Your task to perform on an android device: turn off location history Image 0: 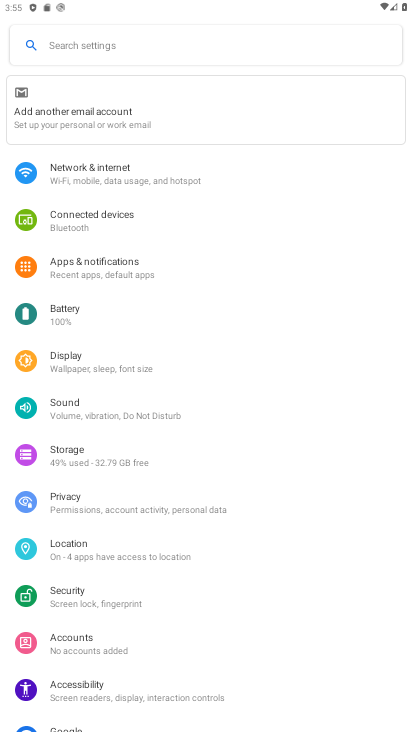
Step 0: press back button
Your task to perform on an android device: turn off location history Image 1: 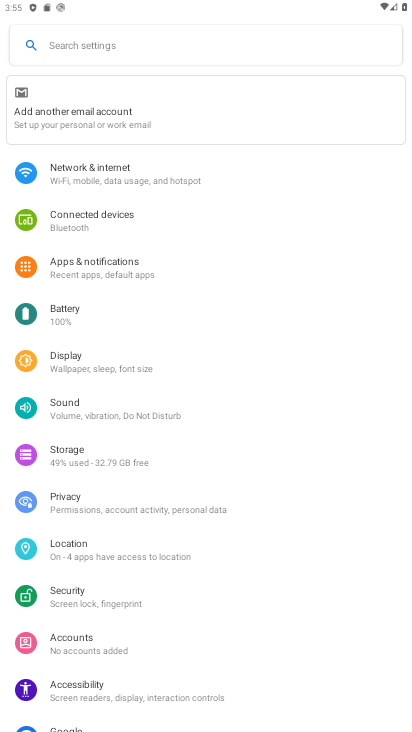
Step 1: press back button
Your task to perform on an android device: turn off location history Image 2: 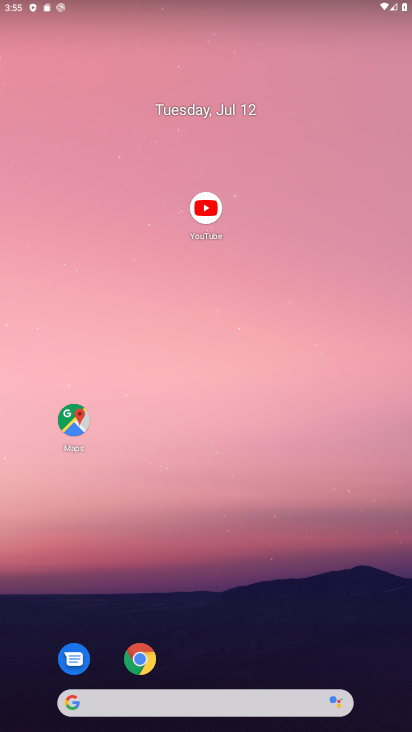
Step 2: drag from (266, 710) to (142, 125)
Your task to perform on an android device: turn off location history Image 3: 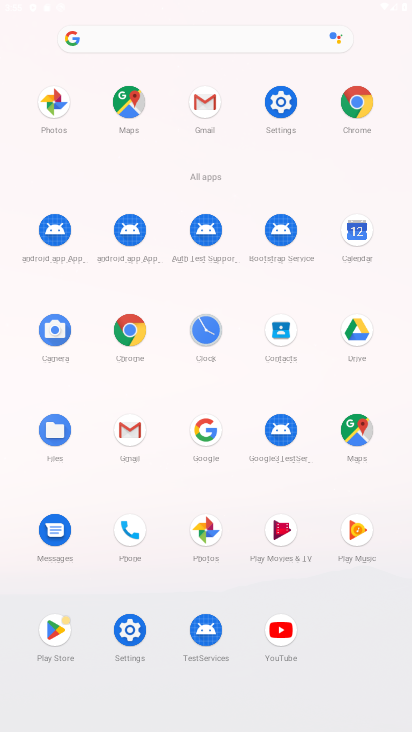
Step 3: click (291, 106)
Your task to perform on an android device: turn off location history Image 4: 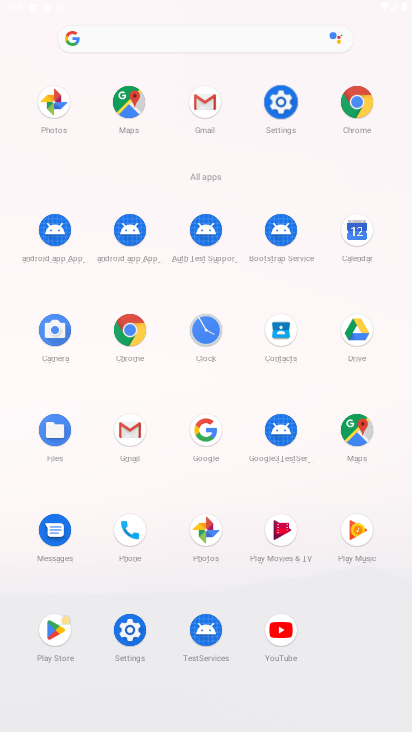
Step 4: click (291, 106)
Your task to perform on an android device: turn off location history Image 5: 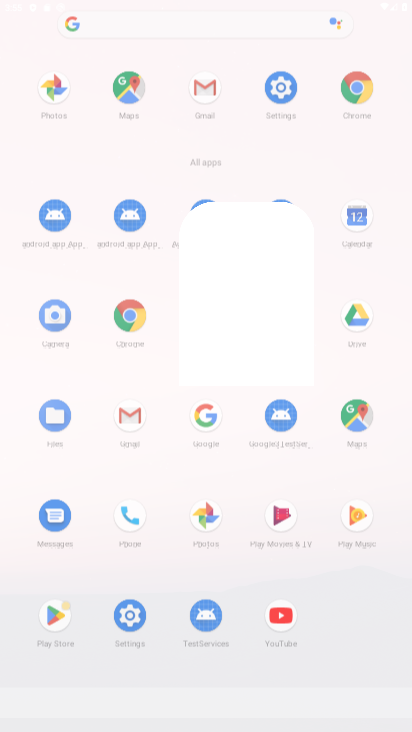
Step 5: click (291, 105)
Your task to perform on an android device: turn off location history Image 6: 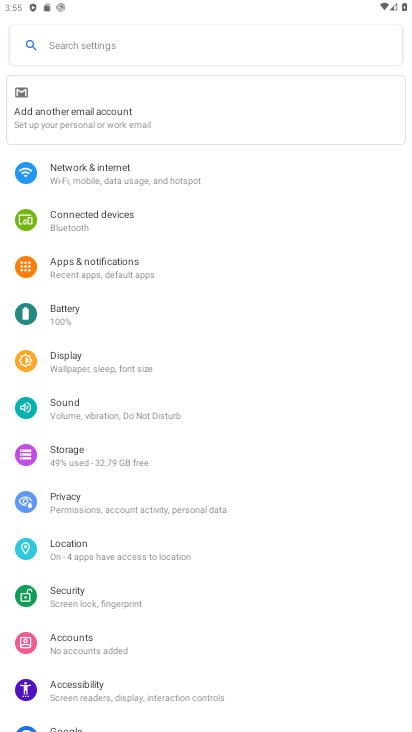
Step 6: click (73, 561)
Your task to perform on an android device: turn off location history Image 7: 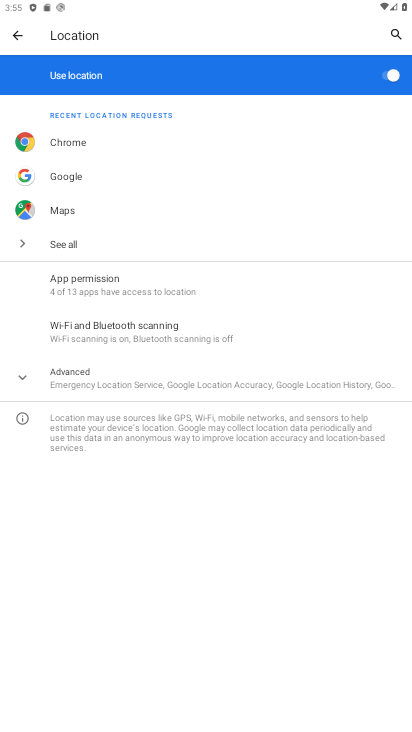
Step 7: click (105, 372)
Your task to perform on an android device: turn off location history Image 8: 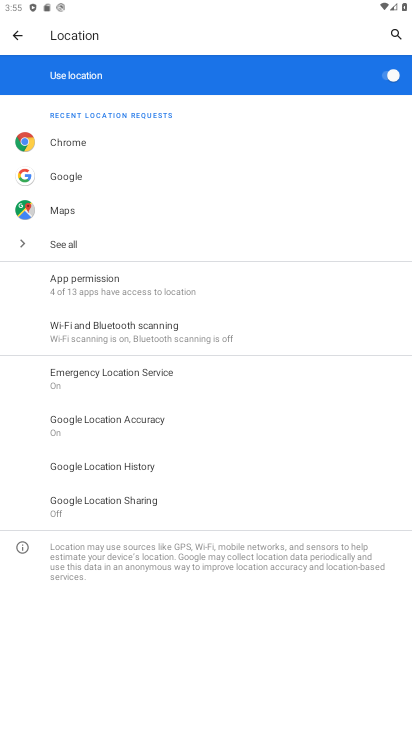
Step 8: click (75, 464)
Your task to perform on an android device: turn off location history Image 9: 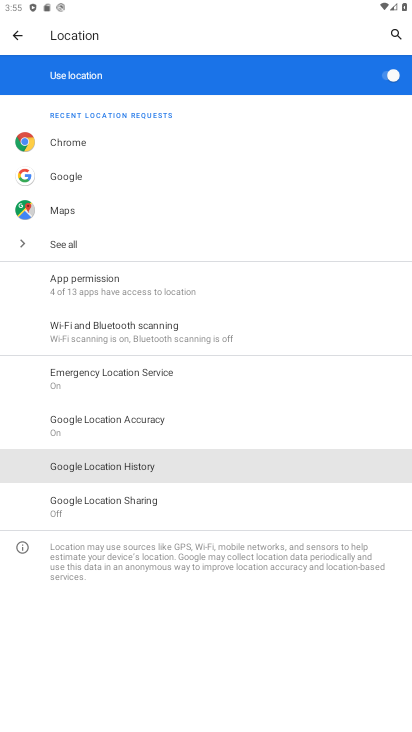
Step 9: click (76, 464)
Your task to perform on an android device: turn off location history Image 10: 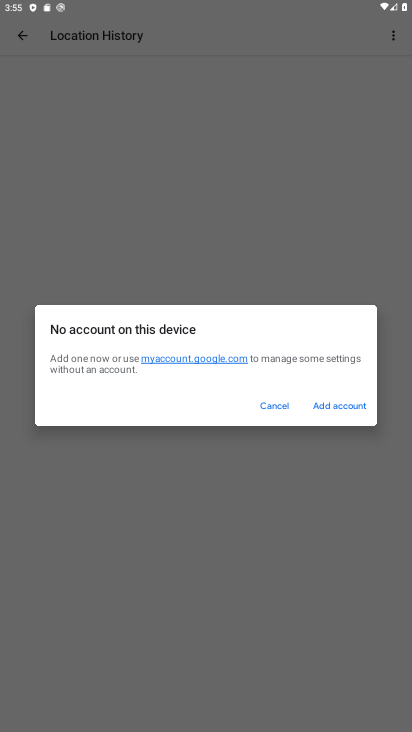
Step 10: click (286, 405)
Your task to perform on an android device: turn off location history Image 11: 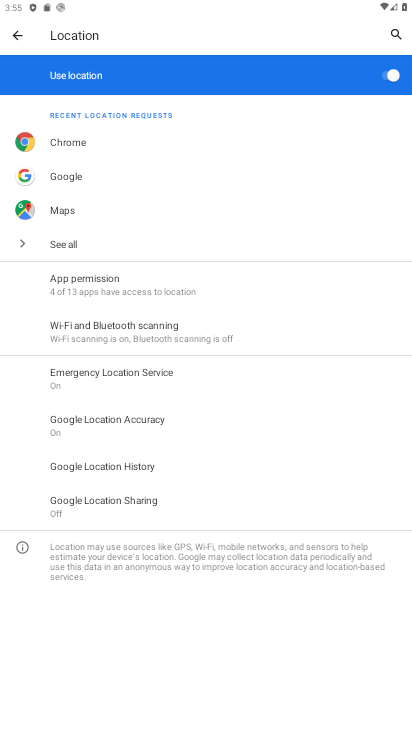
Step 11: click (117, 459)
Your task to perform on an android device: turn off location history Image 12: 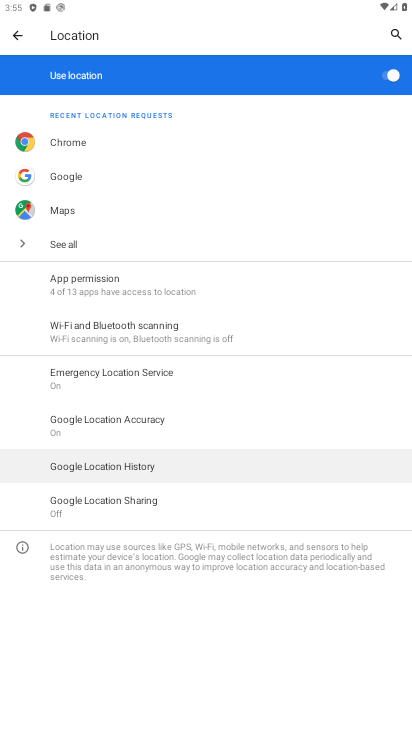
Step 12: click (116, 459)
Your task to perform on an android device: turn off location history Image 13: 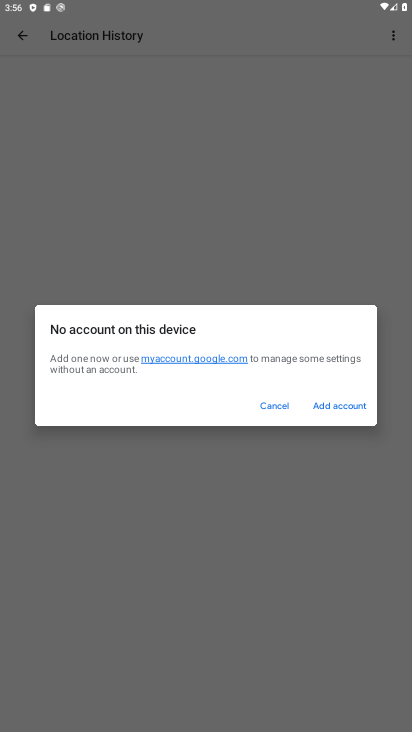
Step 13: click (264, 401)
Your task to perform on an android device: turn off location history Image 14: 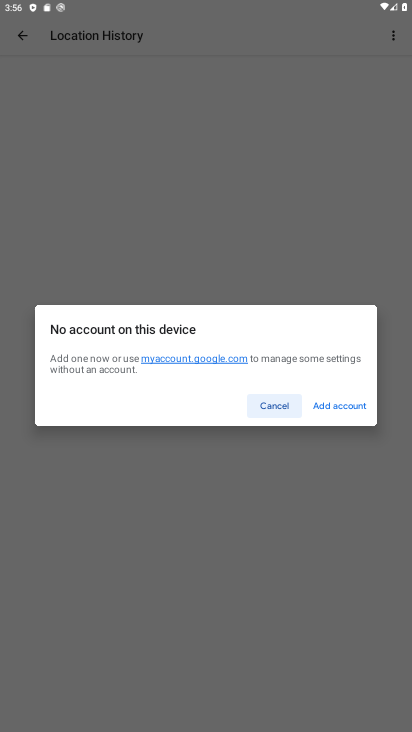
Step 14: click (265, 392)
Your task to perform on an android device: turn off location history Image 15: 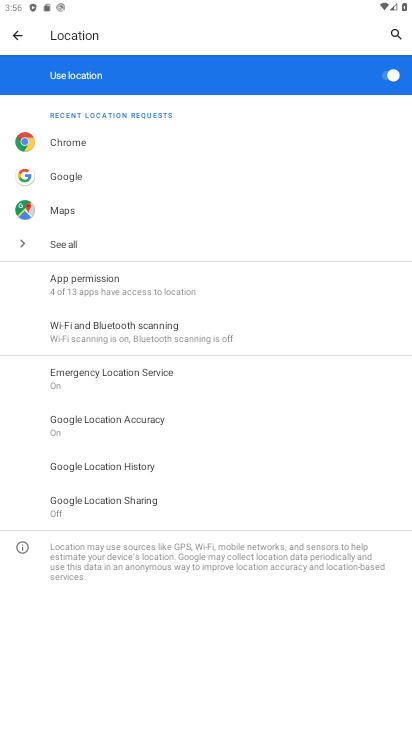
Step 15: click (119, 455)
Your task to perform on an android device: turn off location history Image 16: 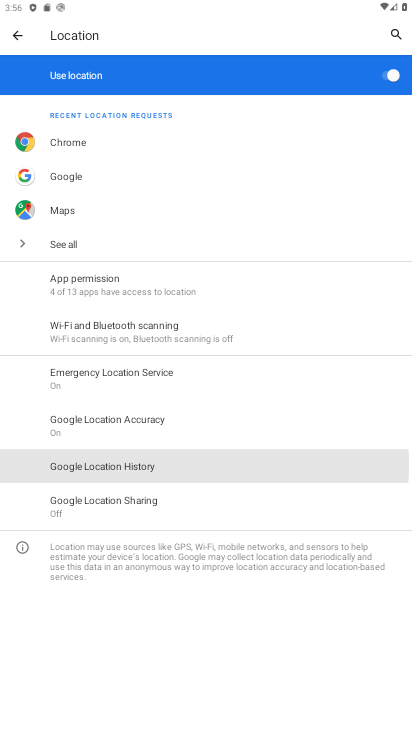
Step 16: click (119, 455)
Your task to perform on an android device: turn off location history Image 17: 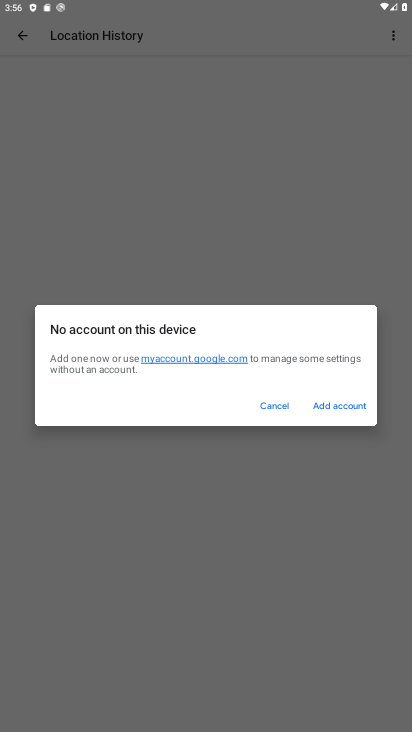
Step 17: click (283, 397)
Your task to perform on an android device: turn off location history Image 18: 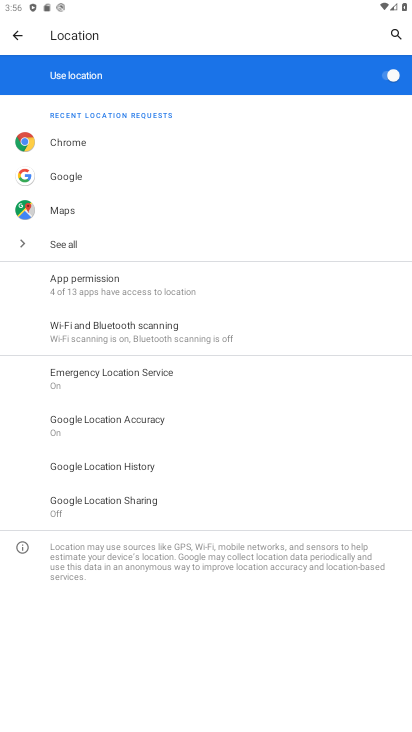
Step 18: task complete